Your task to perform on an android device: delete location history Image 0: 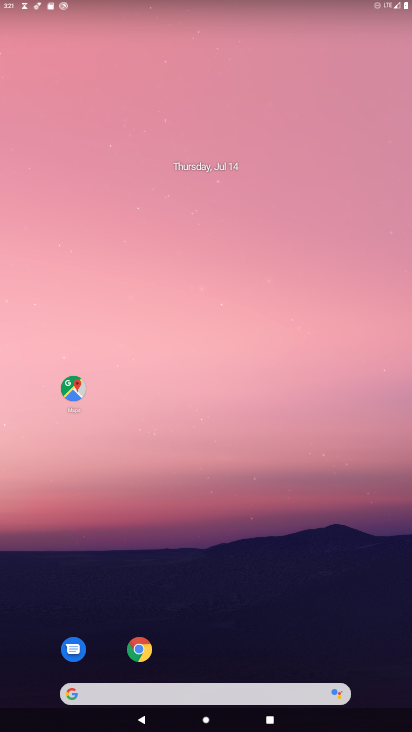
Step 0: drag from (276, 708) to (226, 39)
Your task to perform on an android device: delete location history Image 1: 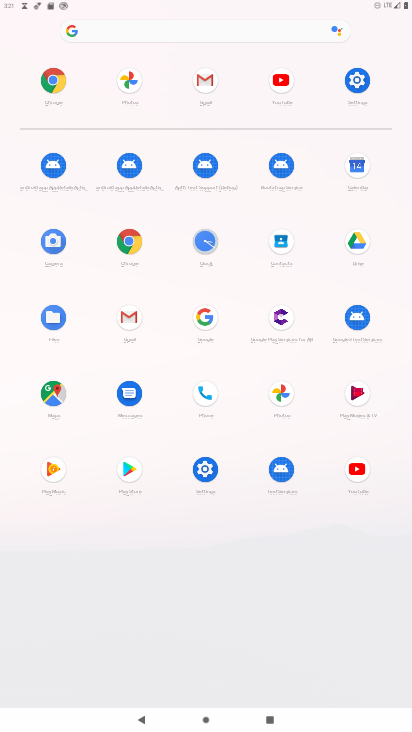
Step 1: click (48, 387)
Your task to perform on an android device: delete location history Image 2: 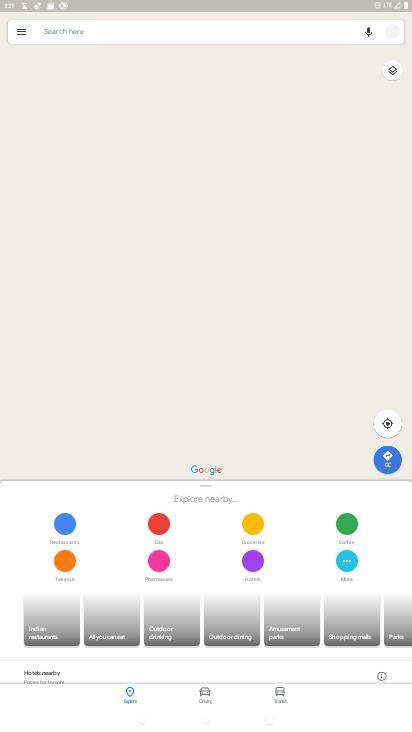
Step 2: click (23, 31)
Your task to perform on an android device: delete location history Image 3: 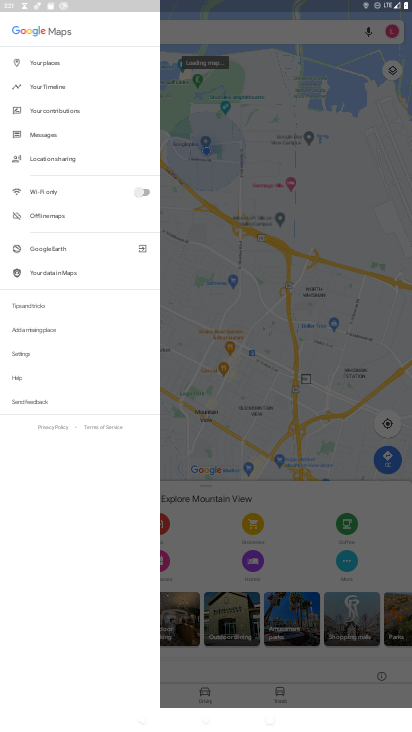
Step 3: click (66, 83)
Your task to perform on an android device: delete location history Image 4: 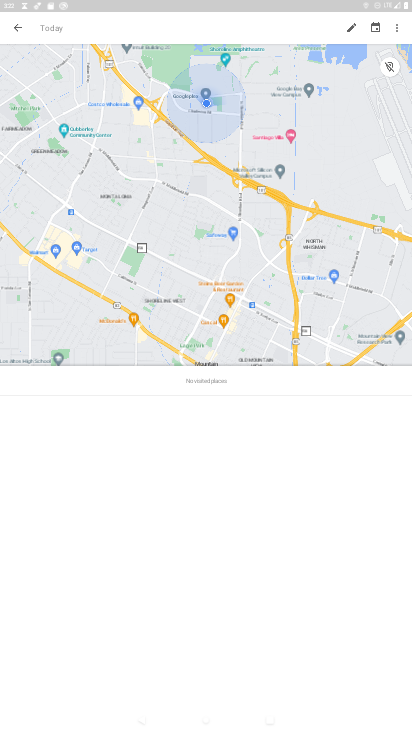
Step 4: click (396, 26)
Your task to perform on an android device: delete location history Image 5: 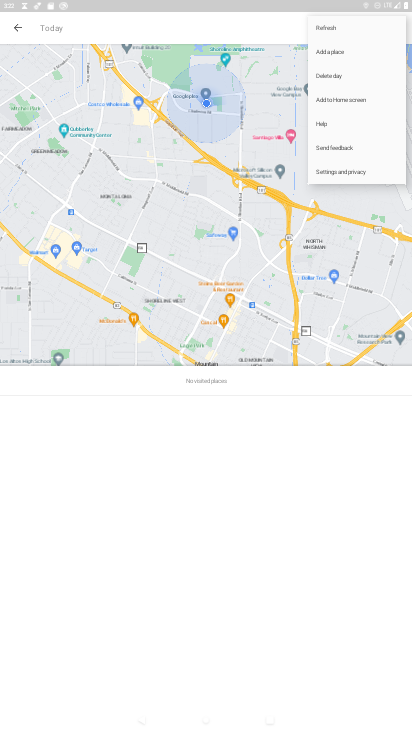
Step 5: click (343, 169)
Your task to perform on an android device: delete location history Image 6: 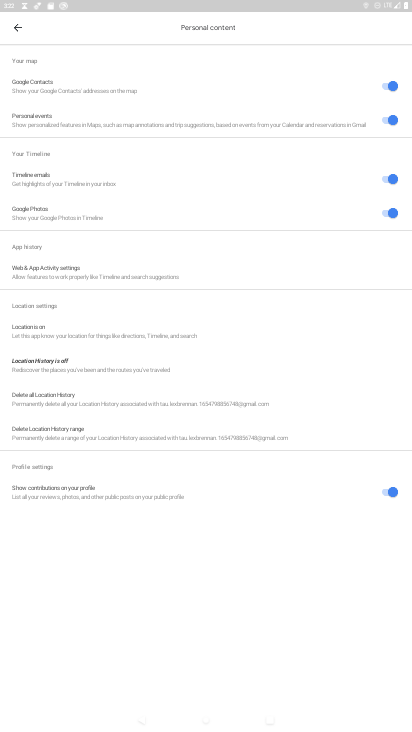
Step 6: click (113, 401)
Your task to perform on an android device: delete location history Image 7: 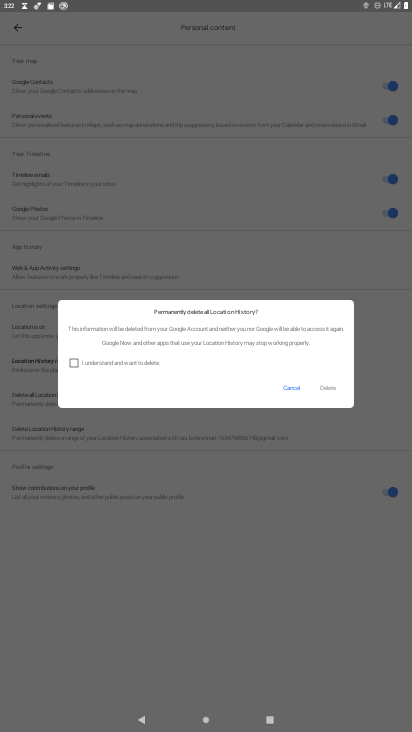
Step 7: click (72, 360)
Your task to perform on an android device: delete location history Image 8: 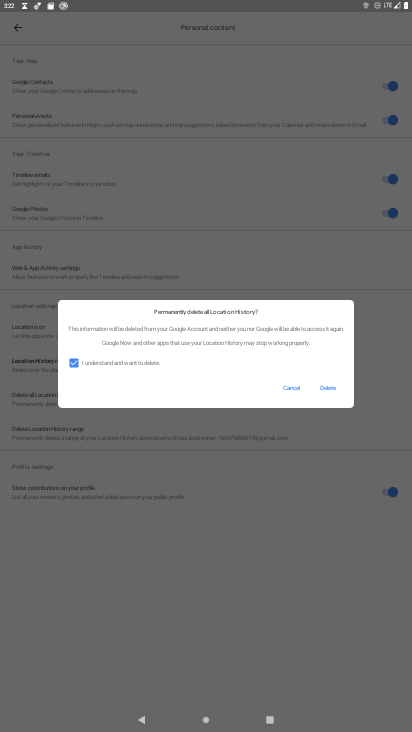
Step 8: click (326, 385)
Your task to perform on an android device: delete location history Image 9: 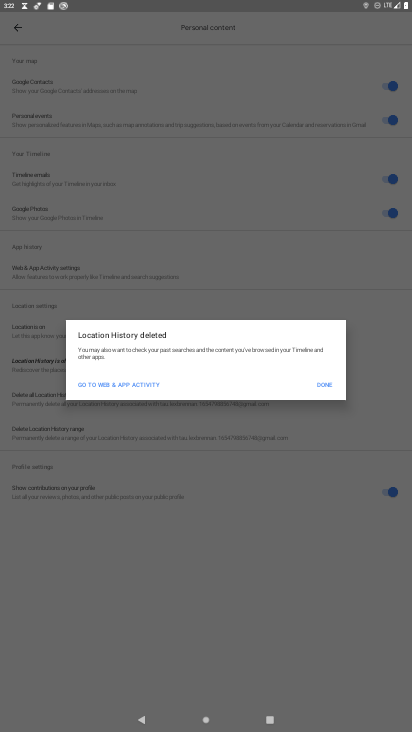
Step 9: click (316, 382)
Your task to perform on an android device: delete location history Image 10: 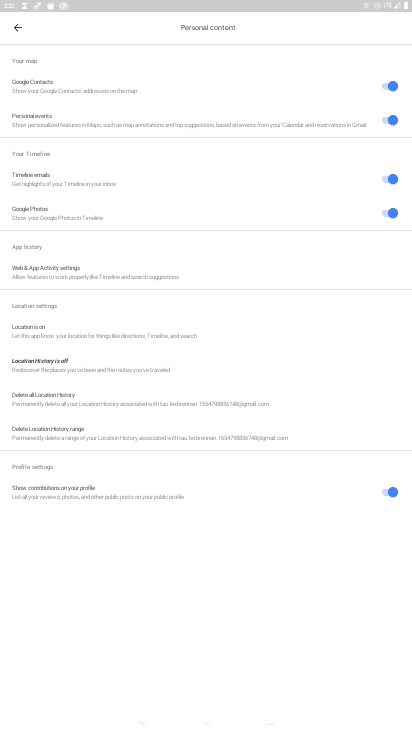
Step 10: task complete